Your task to perform on an android device: turn pop-ups on in chrome Image 0: 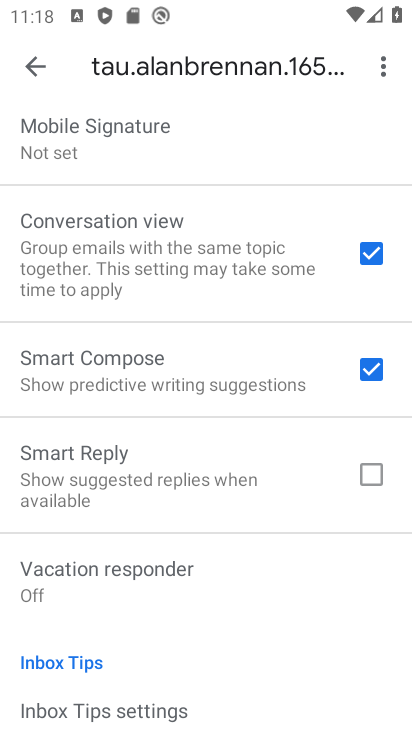
Step 0: press home button
Your task to perform on an android device: turn pop-ups on in chrome Image 1: 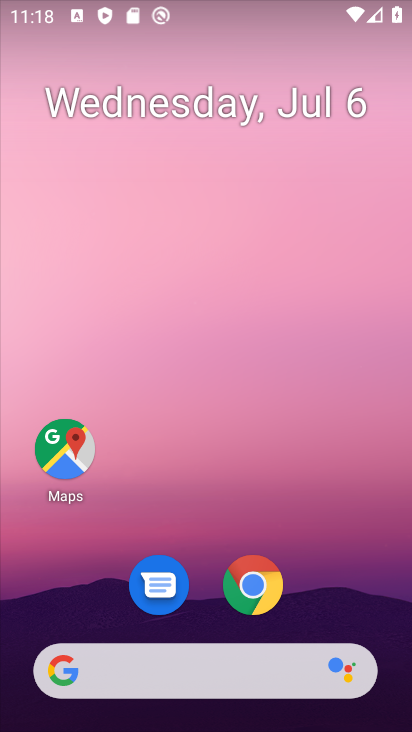
Step 1: click (260, 578)
Your task to perform on an android device: turn pop-ups on in chrome Image 2: 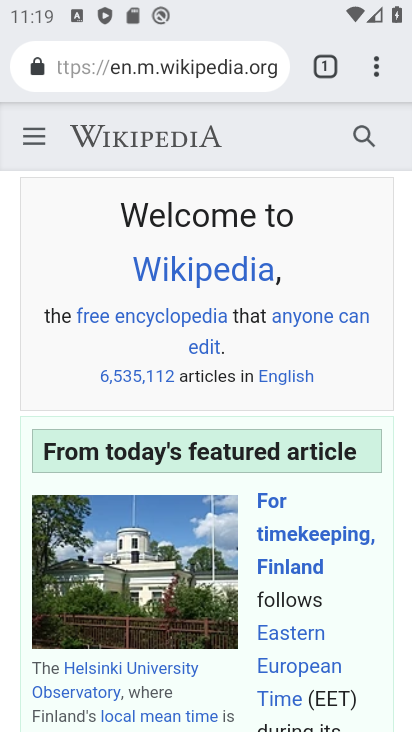
Step 2: click (372, 66)
Your task to perform on an android device: turn pop-ups on in chrome Image 3: 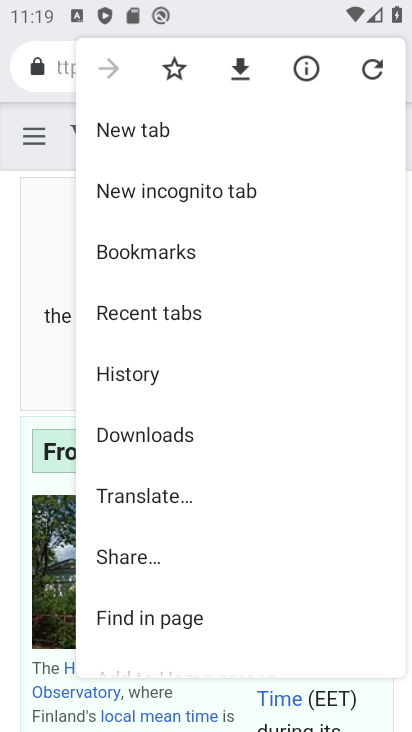
Step 3: drag from (239, 563) to (249, 159)
Your task to perform on an android device: turn pop-ups on in chrome Image 4: 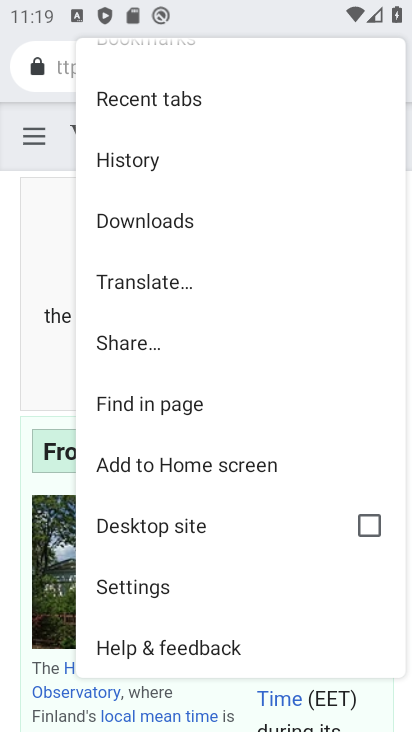
Step 4: click (164, 588)
Your task to perform on an android device: turn pop-ups on in chrome Image 5: 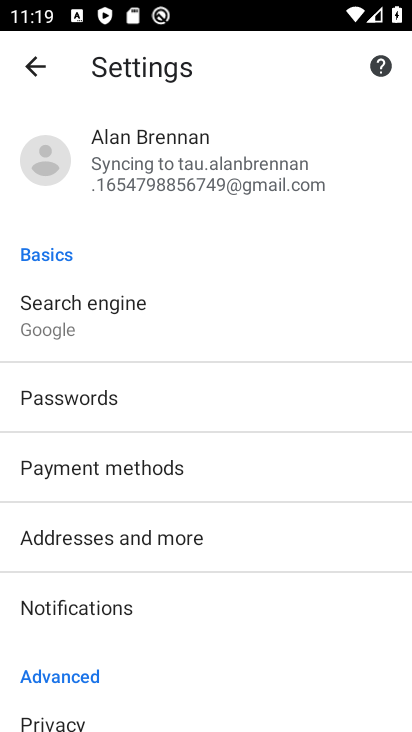
Step 5: drag from (290, 597) to (300, 236)
Your task to perform on an android device: turn pop-ups on in chrome Image 6: 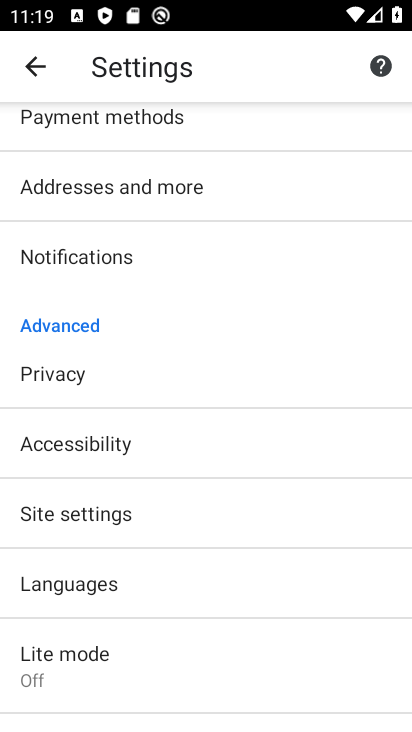
Step 6: click (184, 509)
Your task to perform on an android device: turn pop-ups on in chrome Image 7: 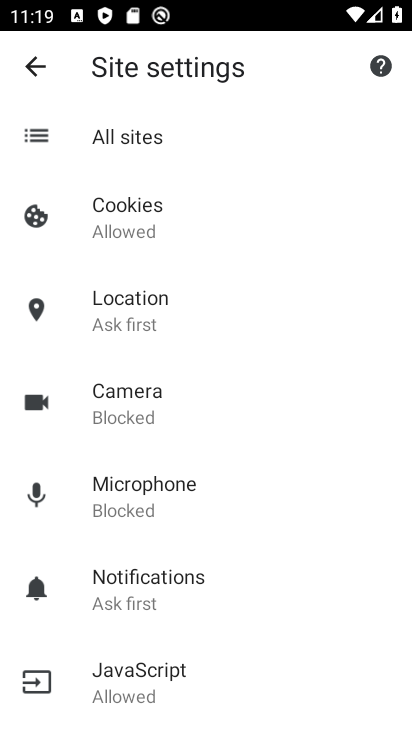
Step 7: drag from (263, 529) to (276, 260)
Your task to perform on an android device: turn pop-ups on in chrome Image 8: 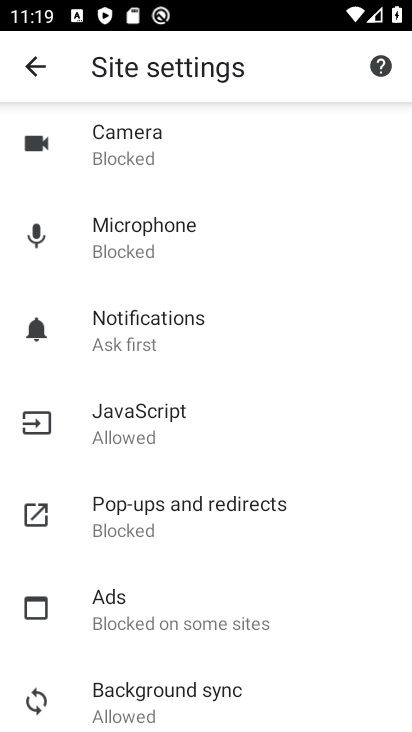
Step 8: click (217, 499)
Your task to perform on an android device: turn pop-ups on in chrome Image 9: 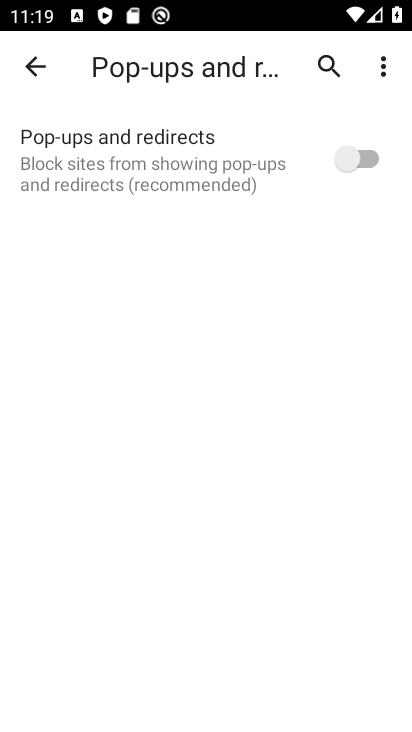
Step 9: click (363, 153)
Your task to perform on an android device: turn pop-ups on in chrome Image 10: 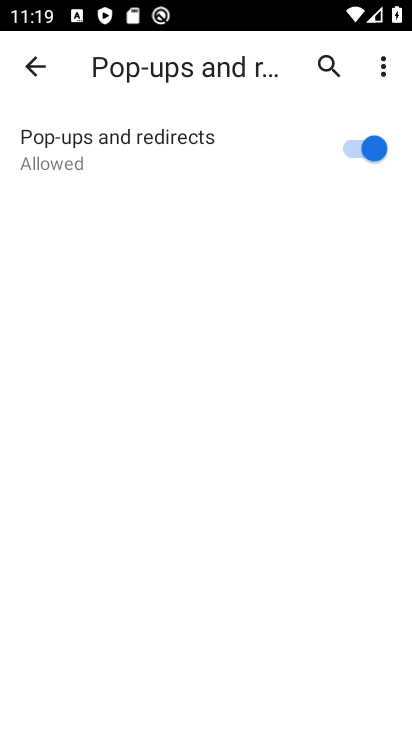
Step 10: task complete